Your task to perform on an android device: find which apps use the phone's location Image 0: 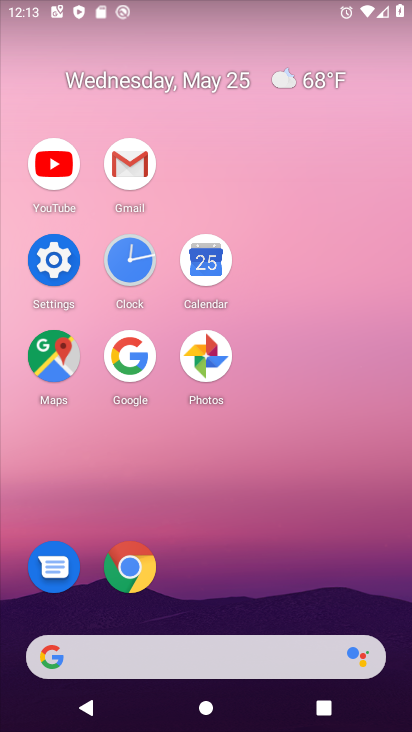
Step 0: click (64, 250)
Your task to perform on an android device: find which apps use the phone's location Image 1: 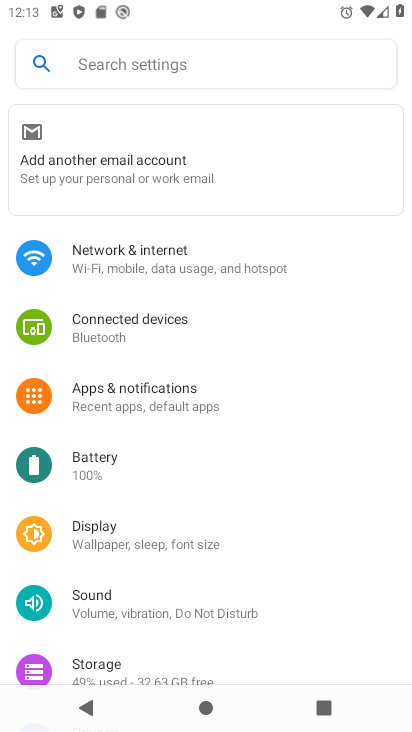
Step 1: drag from (222, 573) to (244, 323)
Your task to perform on an android device: find which apps use the phone's location Image 2: 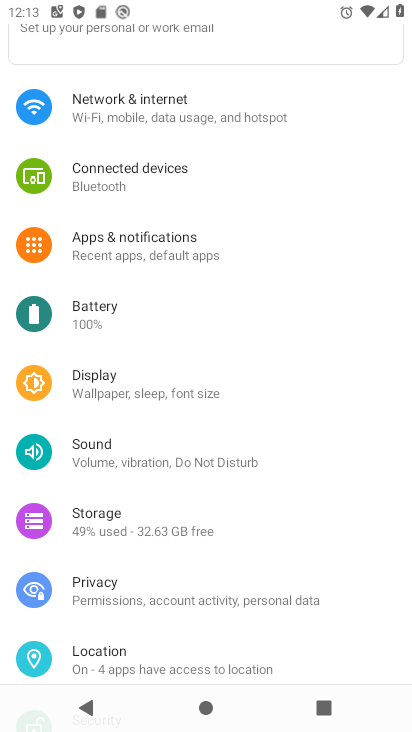
Step 2: click (224, 652)
Your task to perform on an android device: find which apps use the phone's location Image 3: 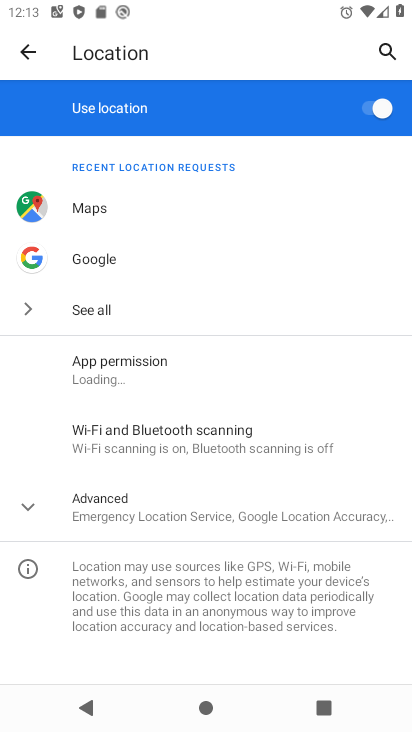
Step 3: task complete